Your task to perform on an android device: change the clock display to show seconds Image 0: 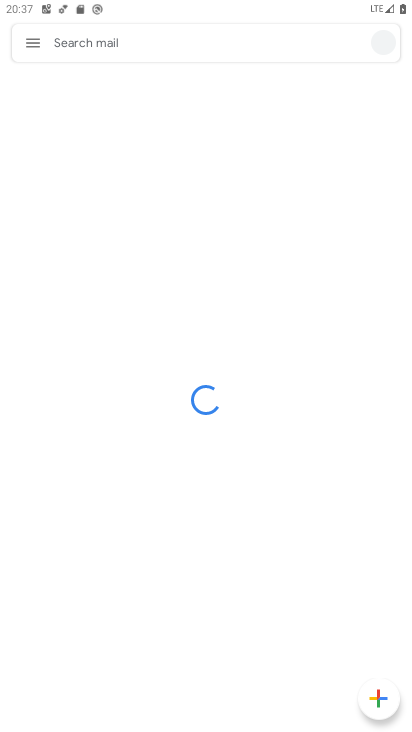
Step 0: drag from (291, 617) to (284, 337)
Your task to perform on an android device: change the clock display to show seconds Image 1: 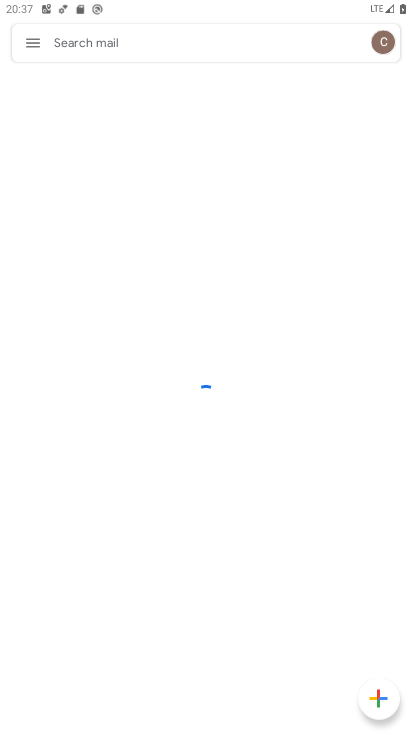
Step 1: press home button
Your task to perform on an android device: change the clock display to show seconds Image 2: 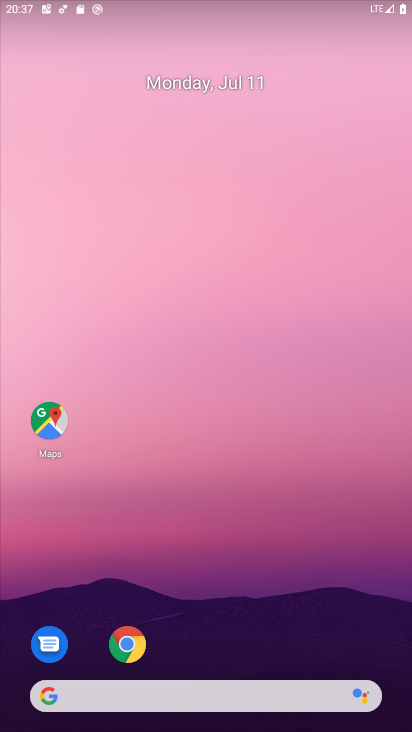
Step 2: drag from (286, 604) to (307, 86)
Your task to perform on an android device: change the clock display to show seconds Image 3: 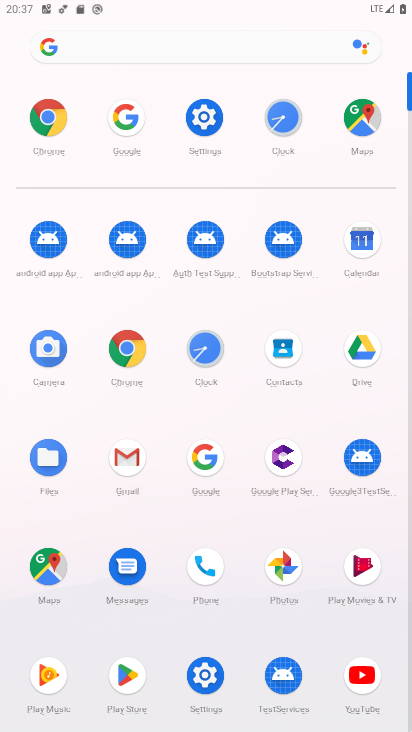
Step 3: click (210, 357)
Your task to perform on an android device: change the clock display to show seconds Image 4: 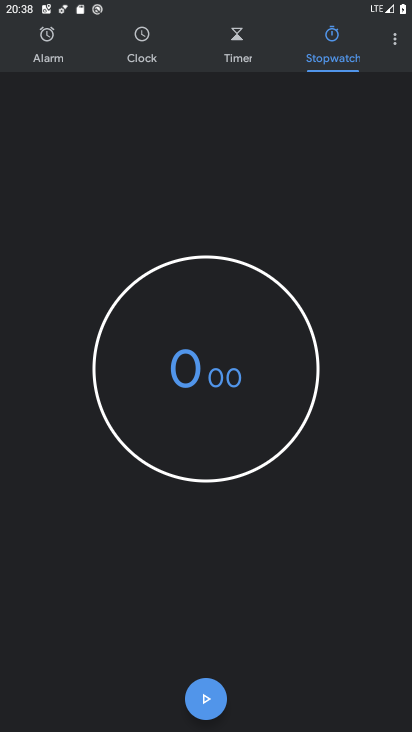
Step 4: click (401, 32)
Your task to perform on an android device: change the clock display to show seconds Image 5: 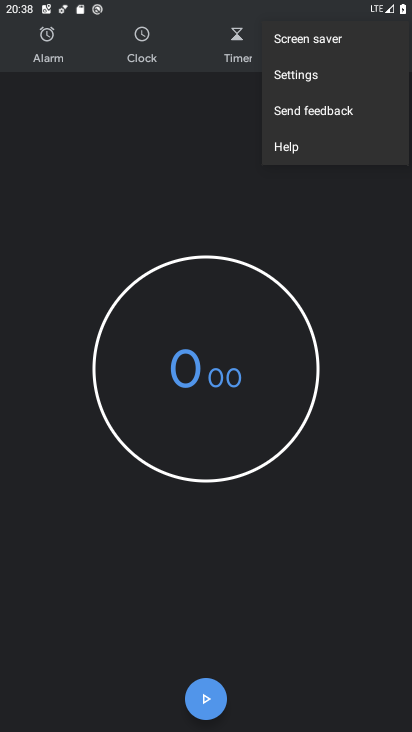
Step 5: click (322, 78)
Your task to perform on an android device: change the clock display to show seconds Image 6: 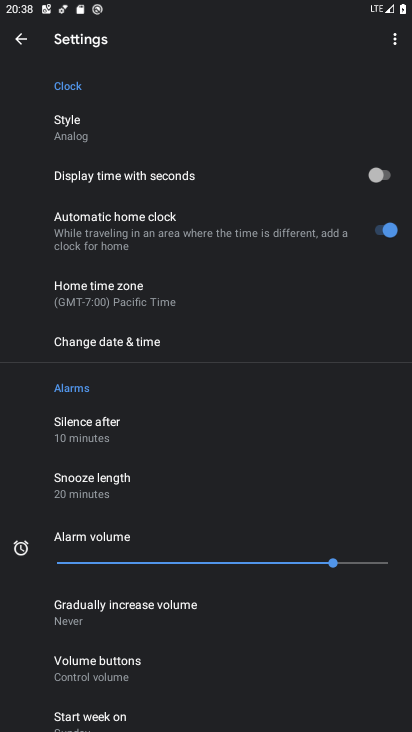
Step 6: click (382, 177)
Your task to perform on an android device: change the clock display to show seconds Image 7: 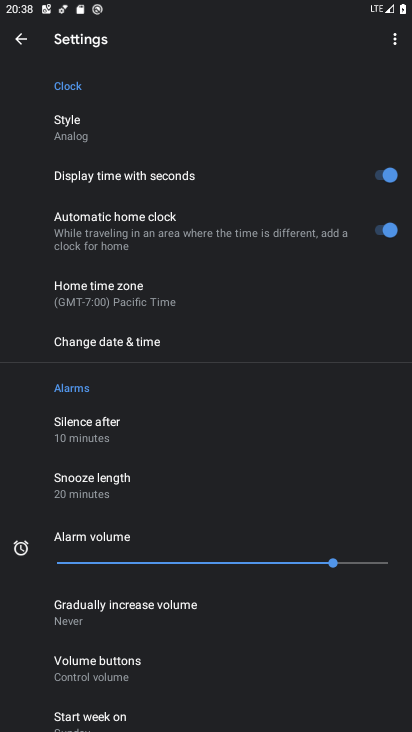
Step 7: task complete